Your task to perform on an android device: turn off notifications settings in the gmail app Image 0: 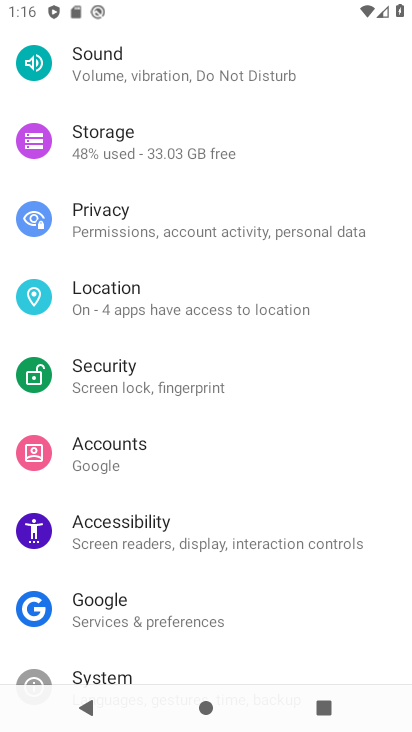
Step 0: press home button
Your task to perform on an android device: turn off notifications settings in the gmail app Image 1: 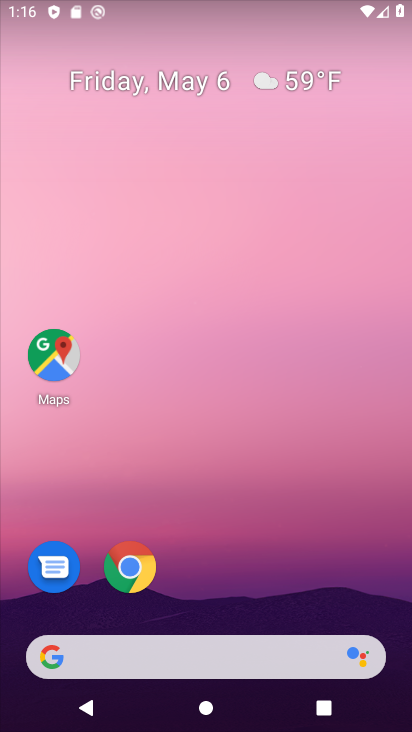
Step 1: drag from (290, 545) to (267, 116)
Your task to perform on an android device: turn off notifications settings in the gmail app Image 2: 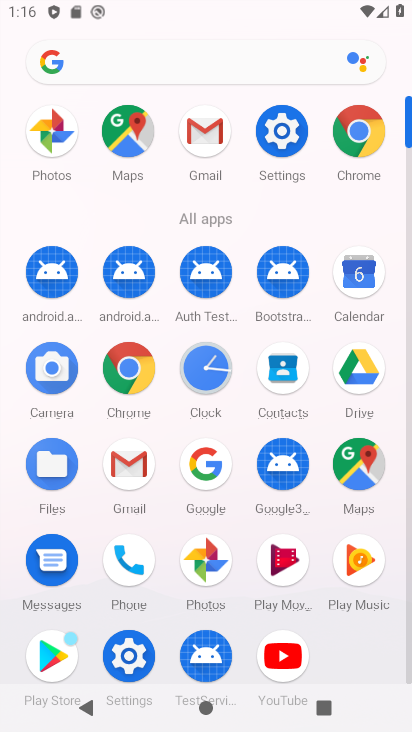
Step 2: click (122, 464)
Your task to perform on an android device: turn off notifications settings in the gmail app Image 3: 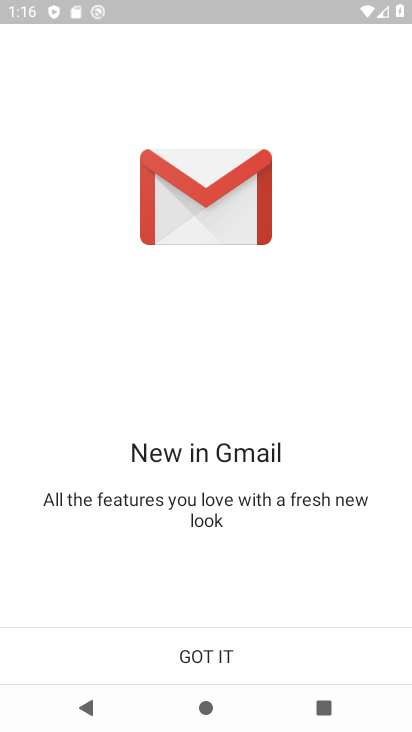
Step 3: click (204, 652)
Your task to perform on an android device: turn off notifications settings in the gmail app Image 4: 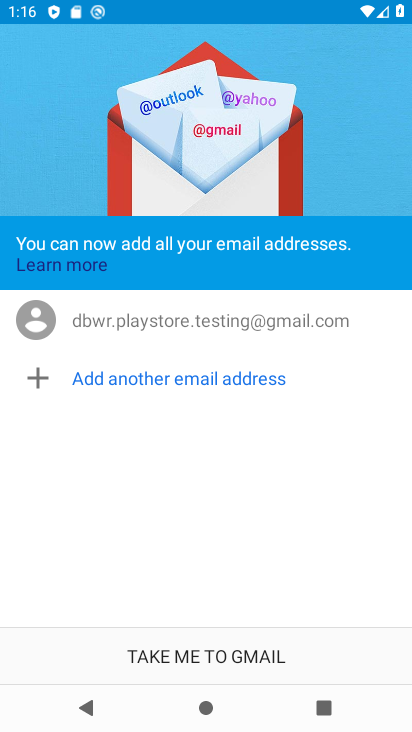
Step 4: click (209, 658)
Your task to perform on an android device: turn off notifications settings in the gmail app Image 5: 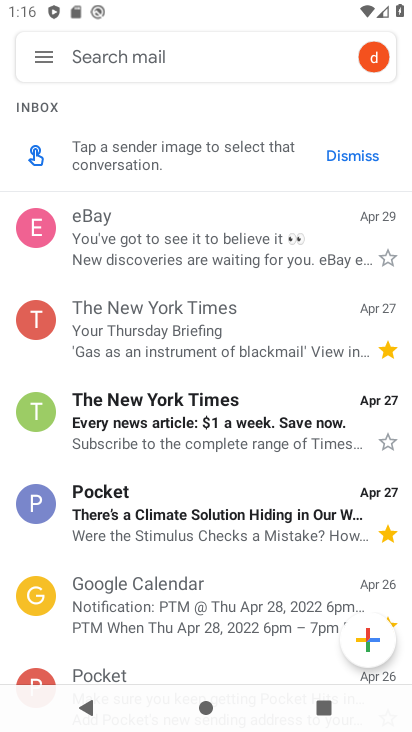
Step 5: click (49, 64)
Your task to perform on an android device: turn off notifications settings in the gmail app Image 6: 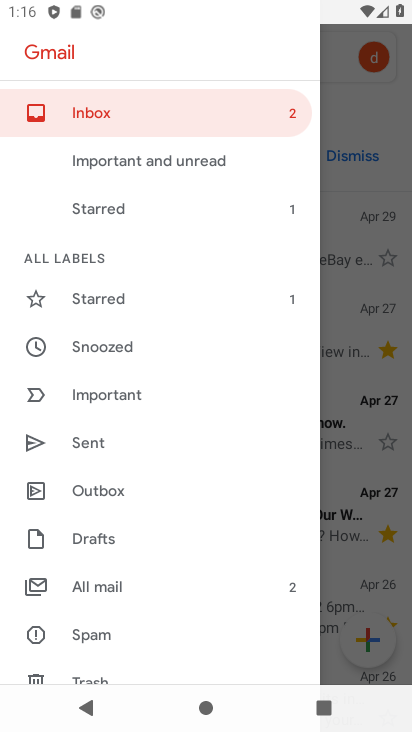
Step 6: drag from (138, 626) to (136, 94)
Your task to perform on an android device: turn off notifications settings in the gmail app Image 7: 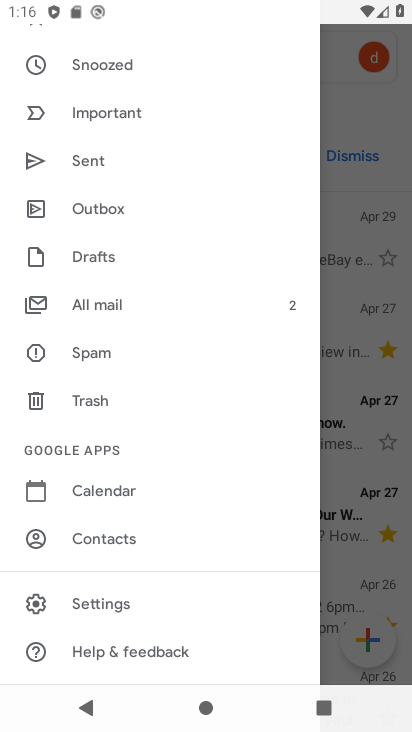
Step 7: click (115, 593)
Your task to perform on an android device: turn off notifications settings in the gmail app Image 8: 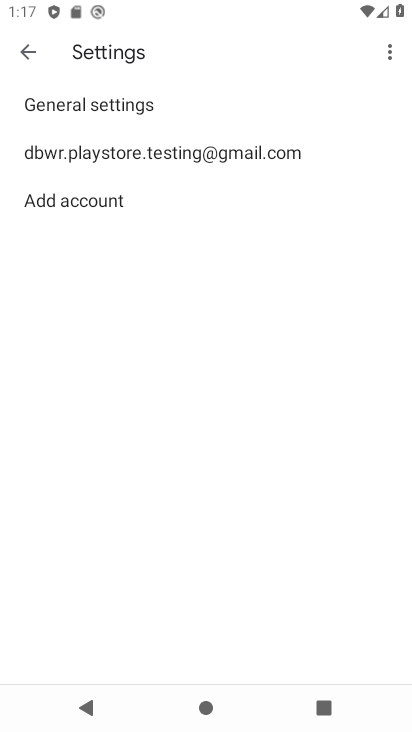
Step 8: click (130, 148)
Your task to perform on an android device: turn off notifications settings in the gmail app Image 9: 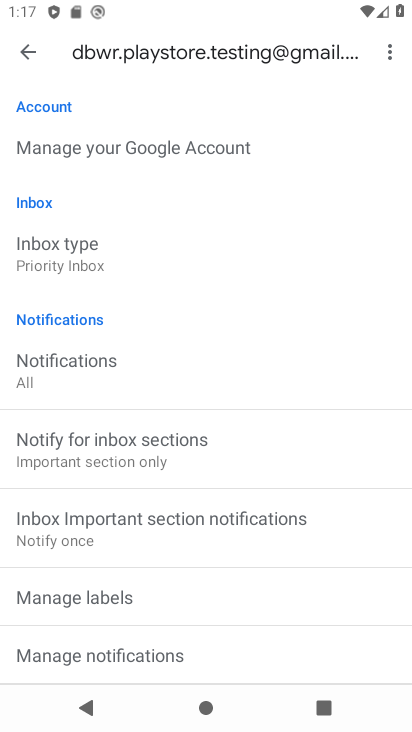
Step 9: click (91, 359)
Your task to perform on an android device: turn off notifications settings in the gmail app Image 10: 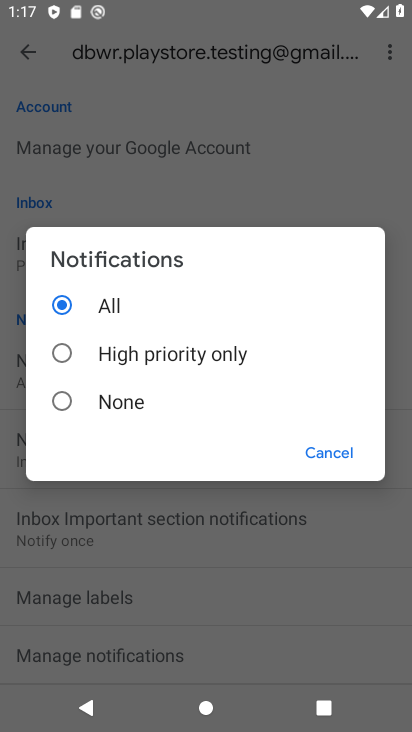
Step 10: click (117, 395)
Your task to perform on an android device: turn off notifications settings in the gmail app Image 11: 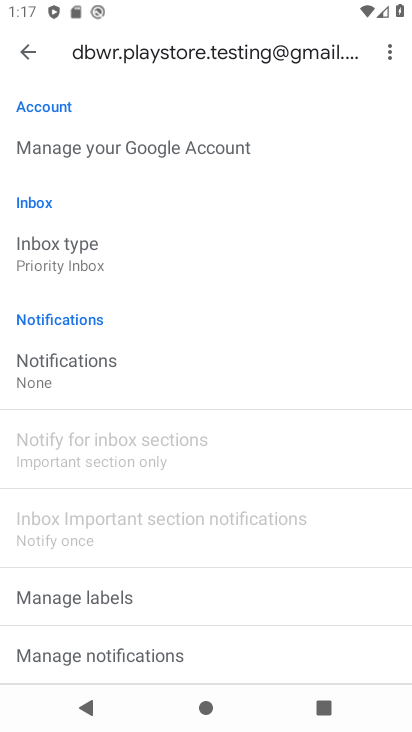
Step 11: click (221, 648)
Your task to perform on an android device: turn off notifications settings in the gmail app Image 12: 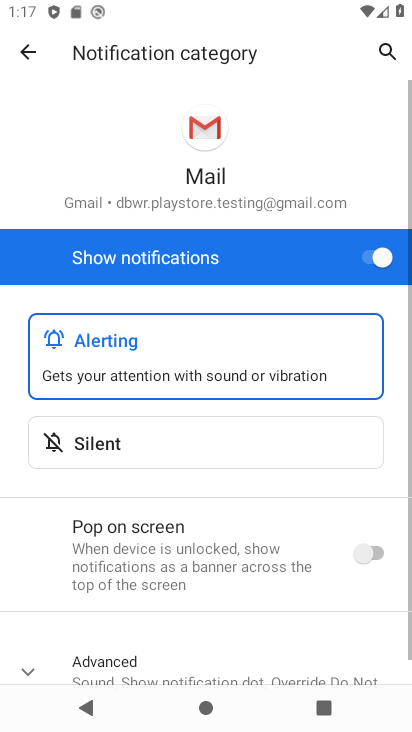
Step 12: click (387, 259)
Your task to perform on an android device: turn off notifications settings in the gmail app Image 13: 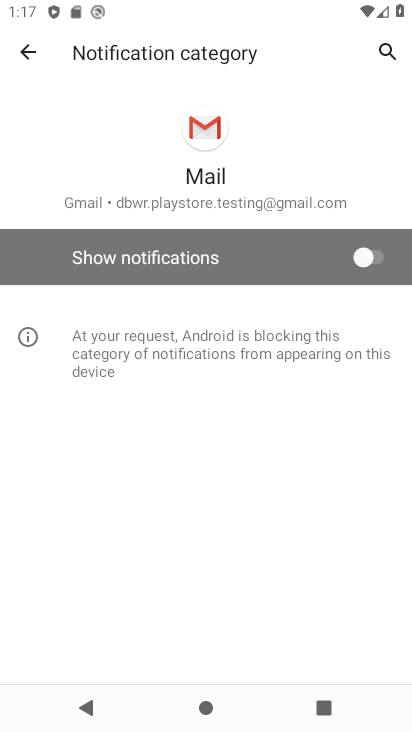
Step 13: task complete